Your task to perform on an android device: check google app version Image 0: 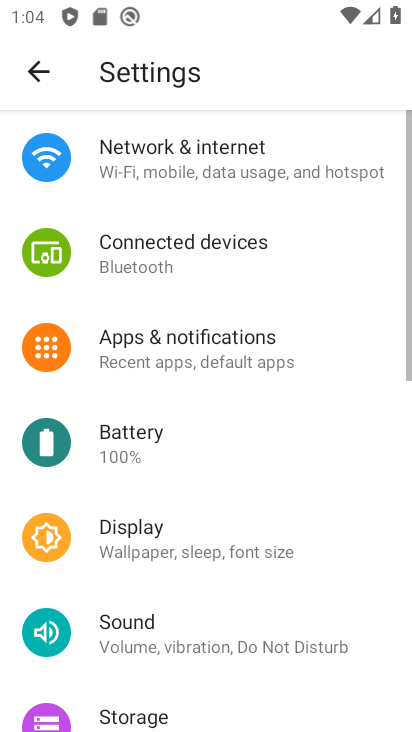
Step 0: press back button
Your task to perform on an android device: check google app version Image 1: 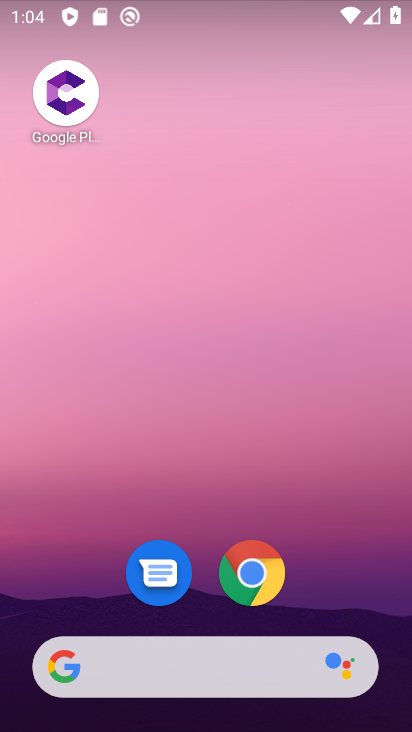
Step 1: drag from (332, 557) to (236, 3)
Your task to perform on an android device: check google app version Image 2: 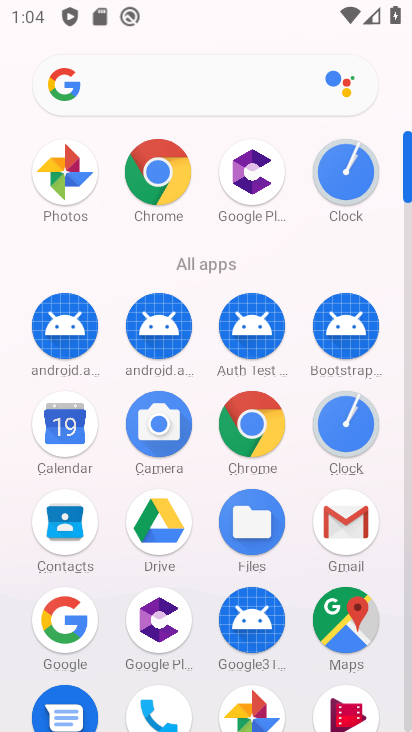
Step 2: drag from (13, 522) to (13, 266)
Your task to perform on an android device: check google app version Image 3: 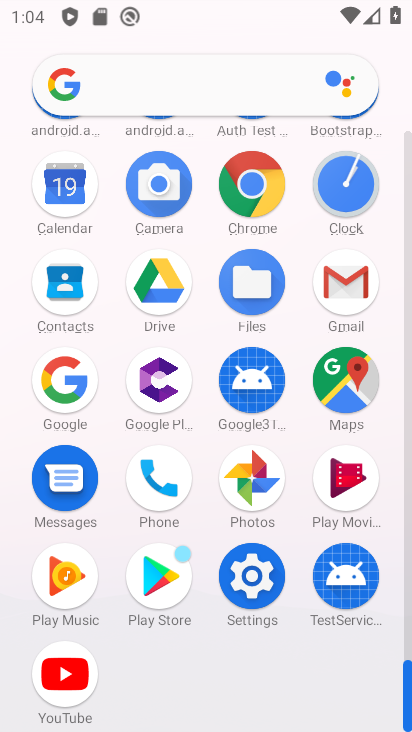
Step 3: click (65, 374)
Your task to perform on an android device: check google app version Image 4: 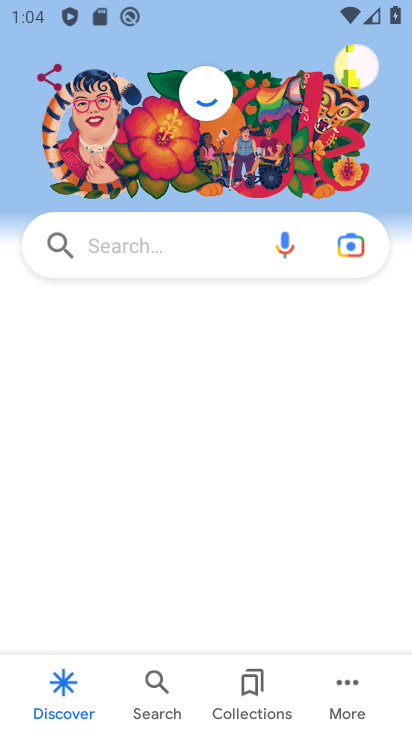
Step 4: click (343, 681)
Your task to perform on an android device: check google app version Image 5: 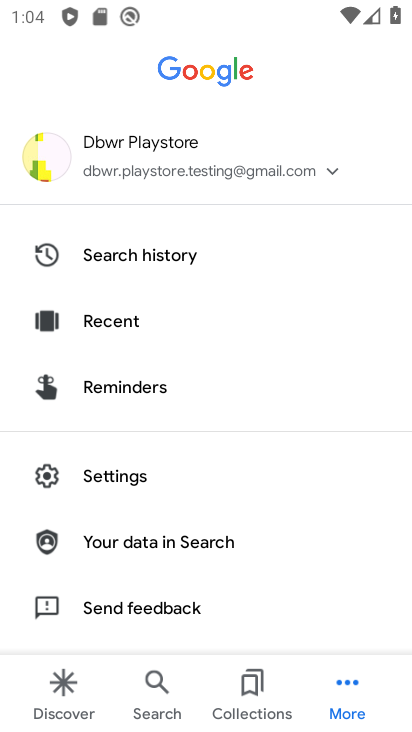
Step 5: drag from (258, 512) to (245, 221)
Your task to perform on an android device: check google app version Image 6: 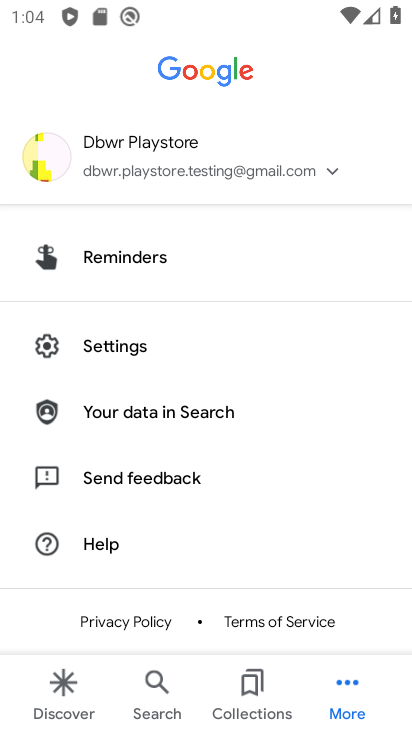
Step 6: click (135, 340)
Your task to perform on an android device: check google app version Image 7: 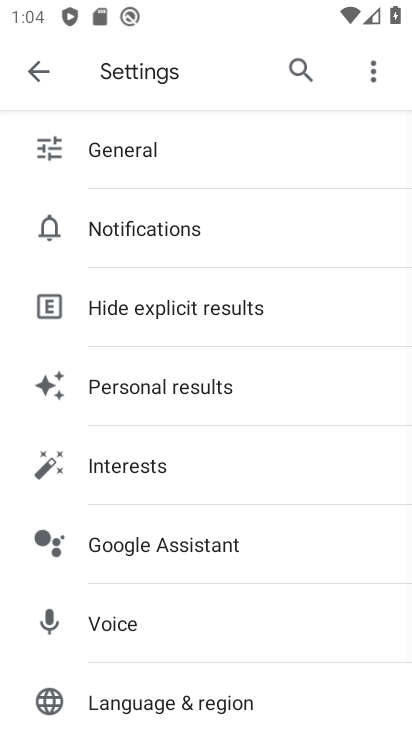
Step 7: drag from (241, 712) to (273, 226)
Your task to perform on an android device: check google app version Image 8: 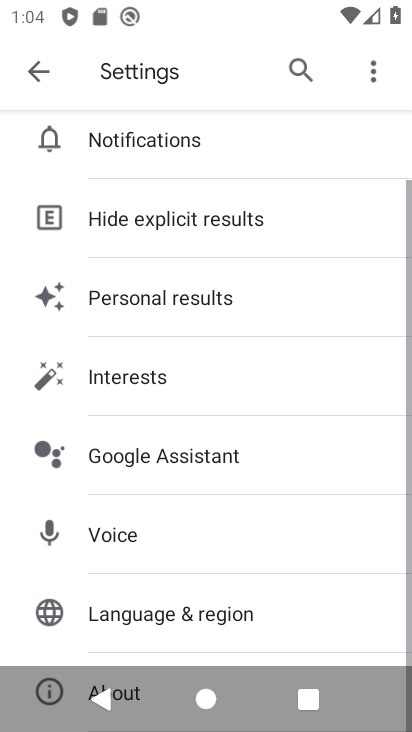
Step 8: drag from (242, 572) to (270, 331)
Your task to perform on an android device: check google app version Image 9: 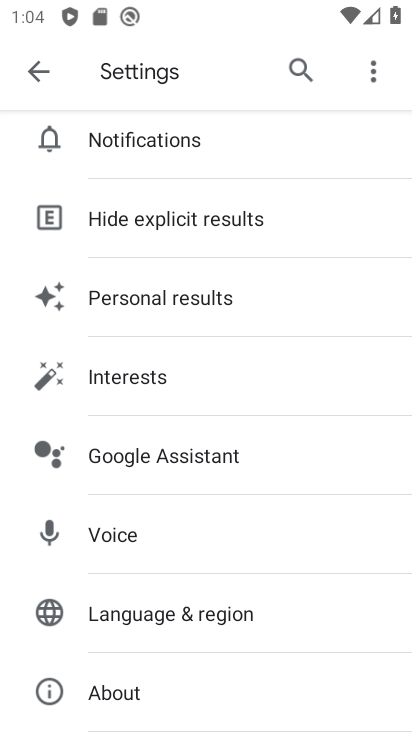
Step 9: click (109, 701)
Your task to perform on an android device: check google app version Image 10: 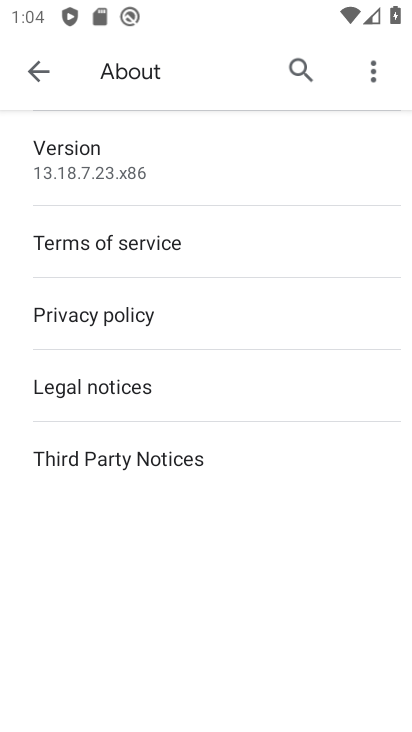
Step 10: task complete